Your task to perform on an android device: What's on my calendar today? Image 0: 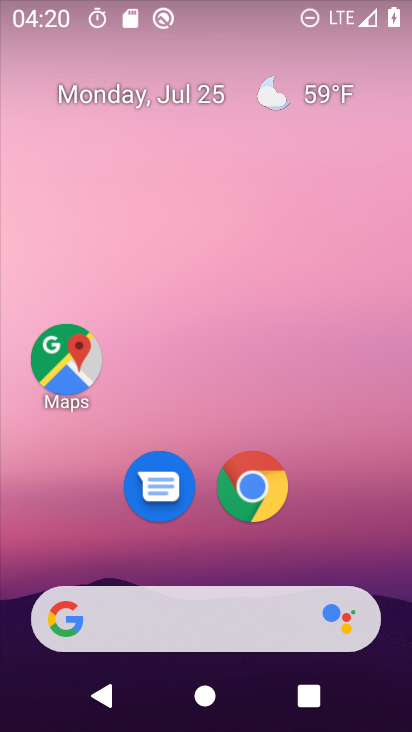
Step 0: drag from (162, 470) to (297, 6)
Your task to perform on an android device: What's on my calendar today? Image 1: 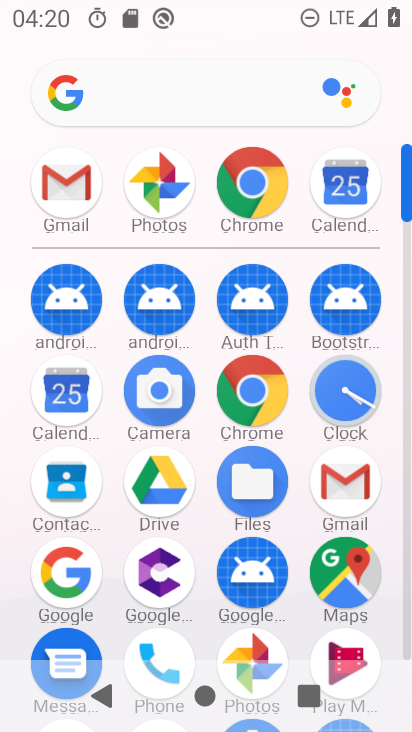
Step 1: click (66, 387)
Your task to perform on an android device: What's on my calendar today? Image 2: 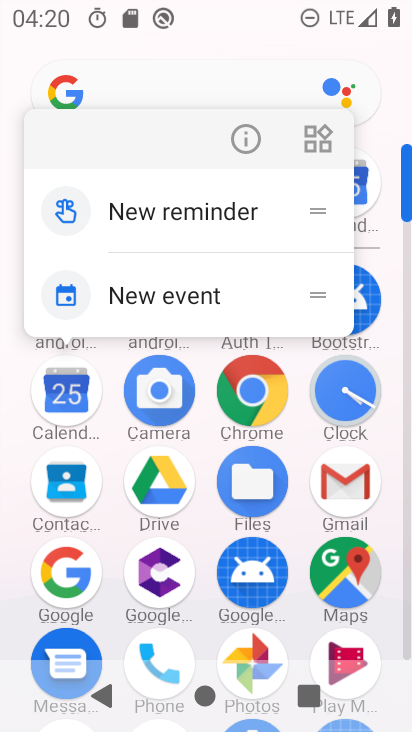
Step 2: click (67, 398)
Your task to perform on an android device: What's on my calendar today? Image 3: 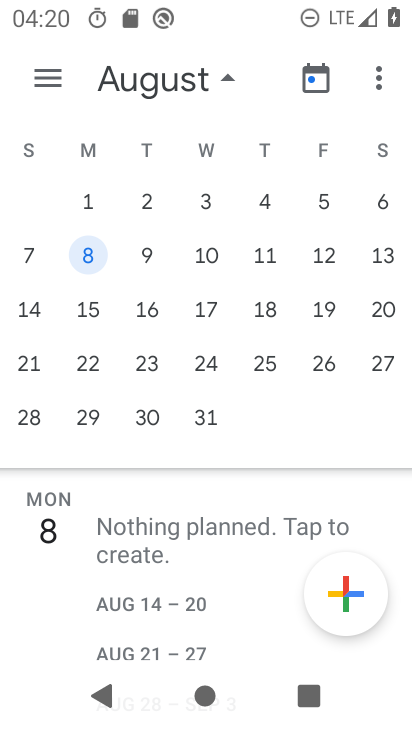
Step 3: drag from (385, 259) to (326, 255)
Your task to perform on an android device: What's on my calendar today? Image 4: 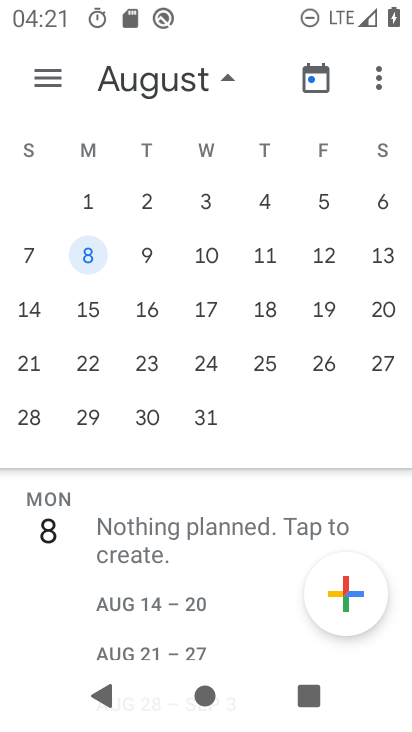
Step 4: drag from (28, 306) to (406, 300)
Your task to perform on an android device: What's on my calendar today? Image 5: 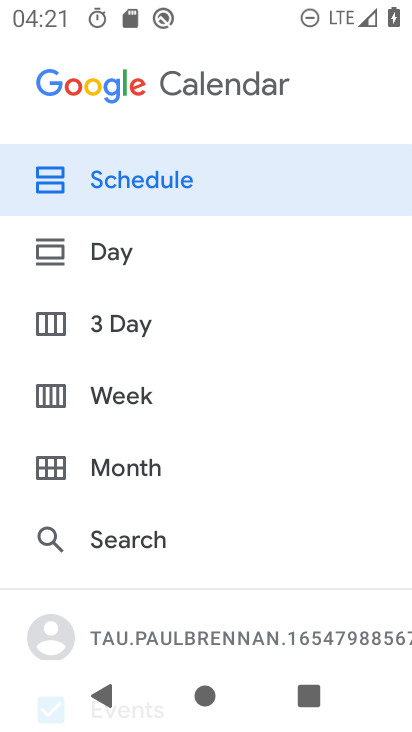
Step 5: drag from (406, 301) to (96, 297)
Your task to perform on an android device: What's on my calendar today? Image 6: 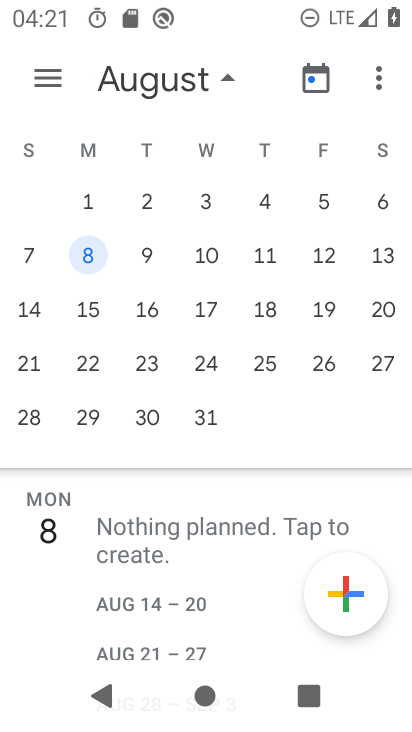
Step 6: drag from (213, 311) to (389, 290)
Your task to perform on an android device: What's on my calendar today? Image 7: 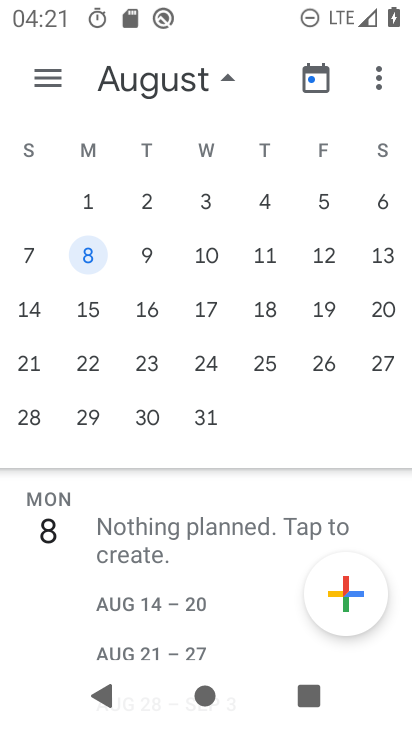
Step 7: drag from (81, 362) to (383, 367)
Your task to perform on an android device: What's on my calendar today? Image 8: 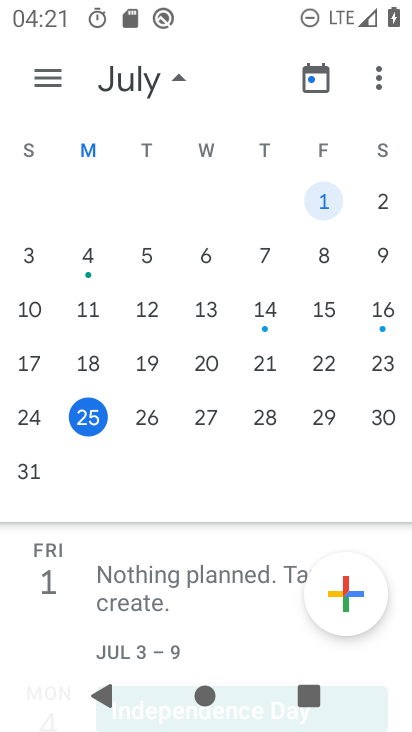
Step 8: click (83, 417)
Your task to perform on an android device: What's on my calendar today? Image 9: 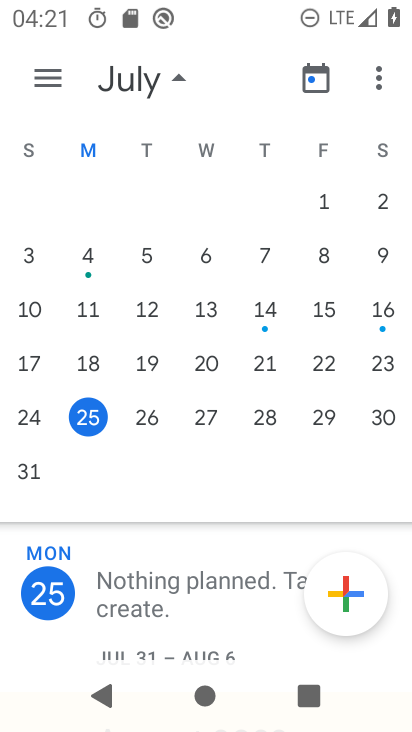
Step 9: task complete